Your task to perform on an android device: Search for pizza restaurants on Maps Image 0: 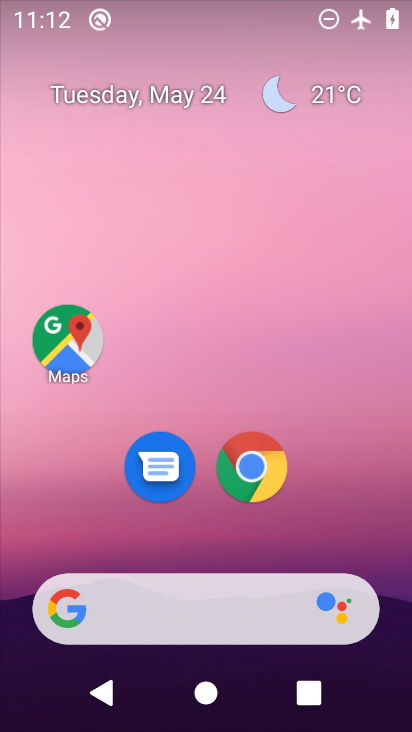
Step 0: click (325, 112)
Your task to perform on an android device: Search for pizza restaurants on Maps Image 1: 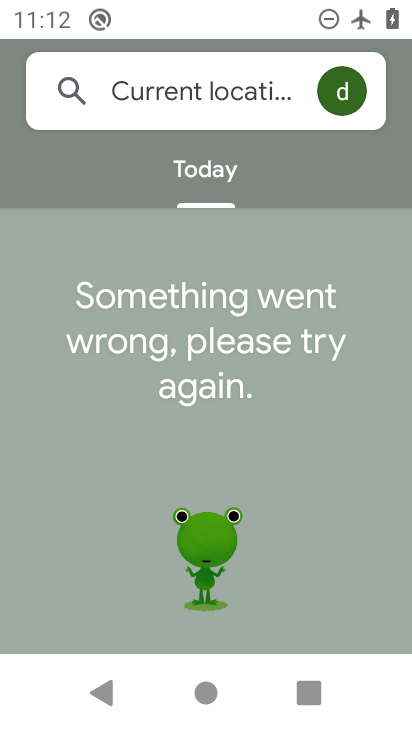
Step 1: drag from (153, 603) to (236, 169)
Your task to perform on an android device: Search for pizza restaurants on Maps Image 2: 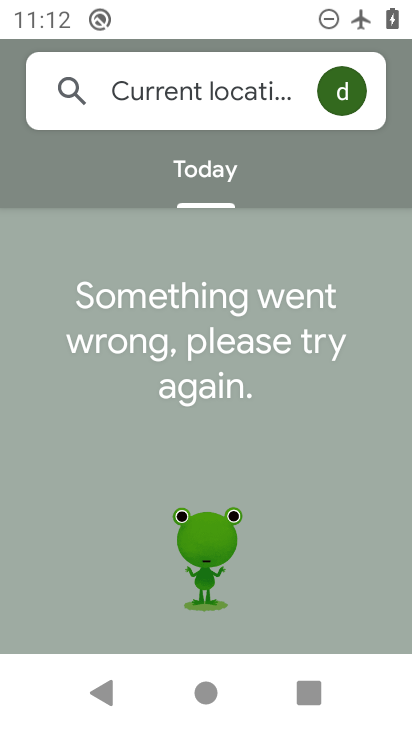
Step 2: press home button
Your task to perform on an android device: Search for pizza restaurants on Maps Image 3: 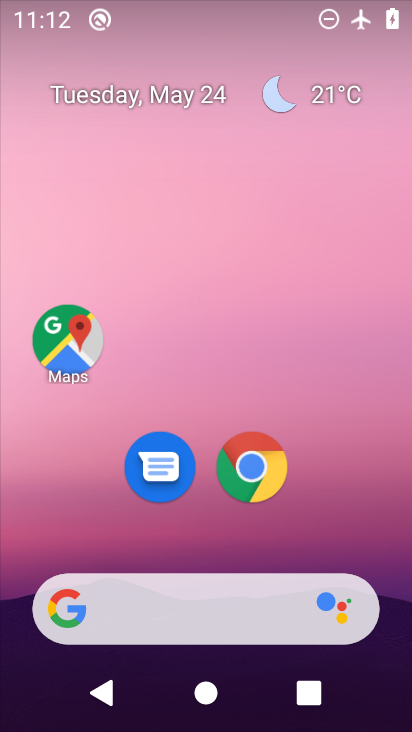
Step 3: drag from (216, 452) to (275, 146)
Your task to perform on an android device: Search for pizza restaurants on Maps Image 4: 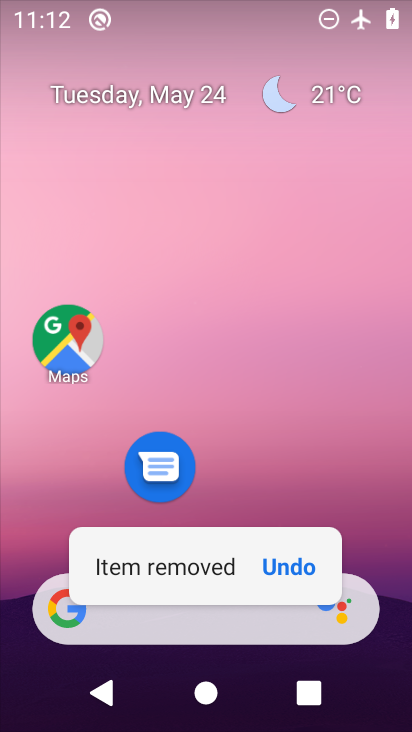
Step 4: drag from (269, 51) to (205, 3)
Your task to perform on an android device: Search for pizza restaurants on Maps Image 5: 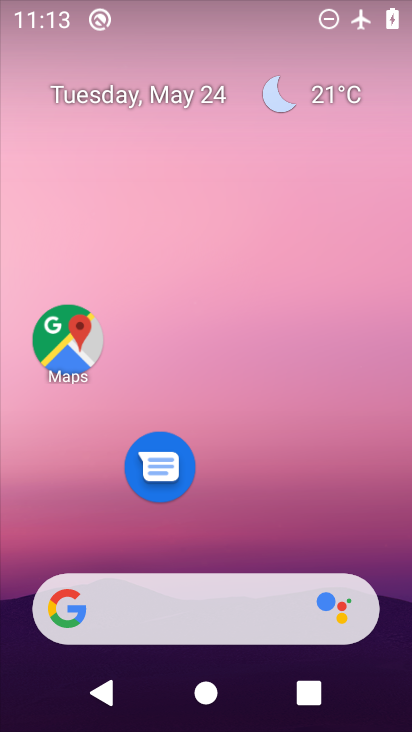
Step 5: drag from (193, 554) to (252, 10)
Your task to perform on an android device: Search for pizza restaurants on Maps Image 6: 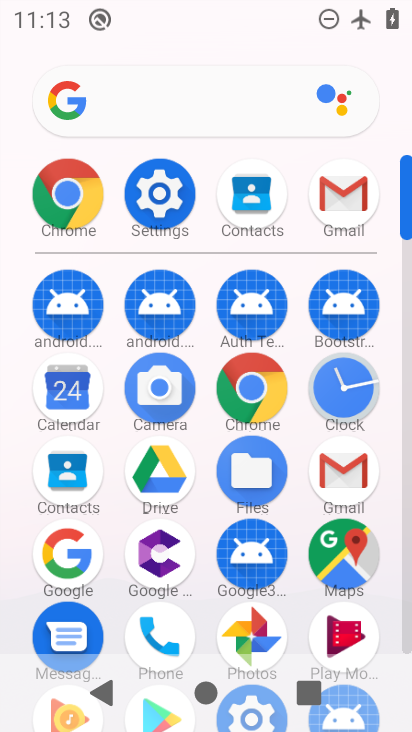
Step 6: click (349, 554)
Your task to perform on an android device: Search for pizza restaurants on Maps Image 7: 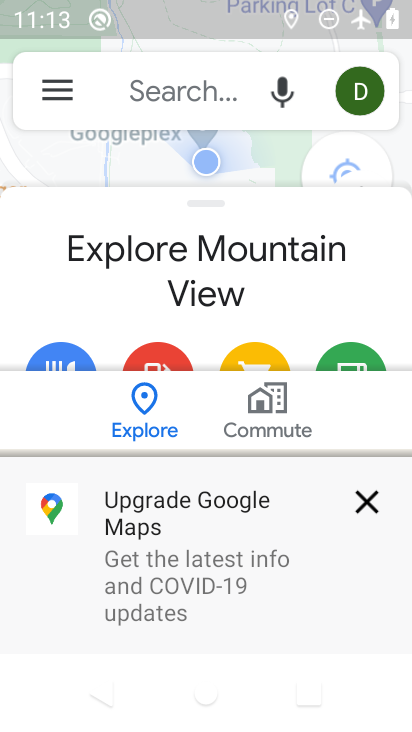
Step 7: click (167, 98)
Your task to perform on an android device: Search for pizza restaurants on Maps Image 8: 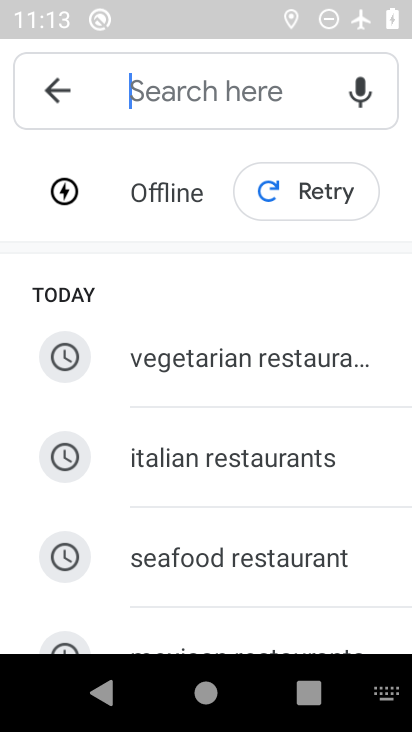
Step 8: drag from (260, 545) to (331, 193)
Your task to perform on an android device: Search for pizza restaurants on Maps Image 9: 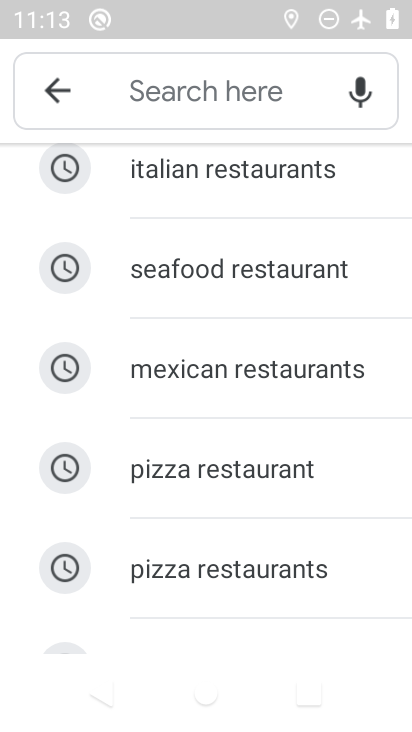
Step 9: click (219, 470)
Your task to perform on an android device: Search for pizza restaurants on Maps Image 10: 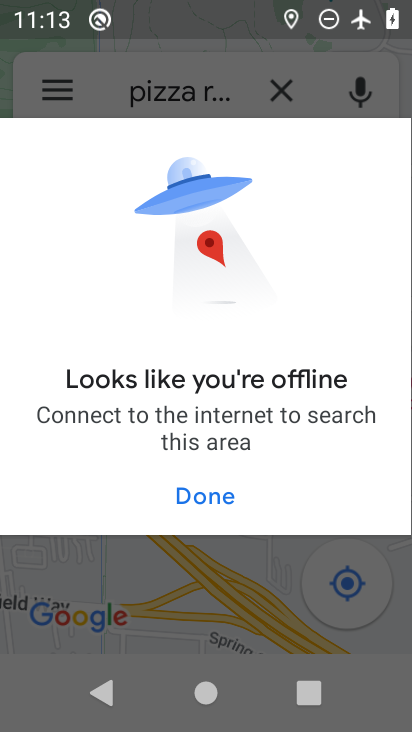
Step 10: task complete